Your task to perform on an android device: open wifi settings Image 0: 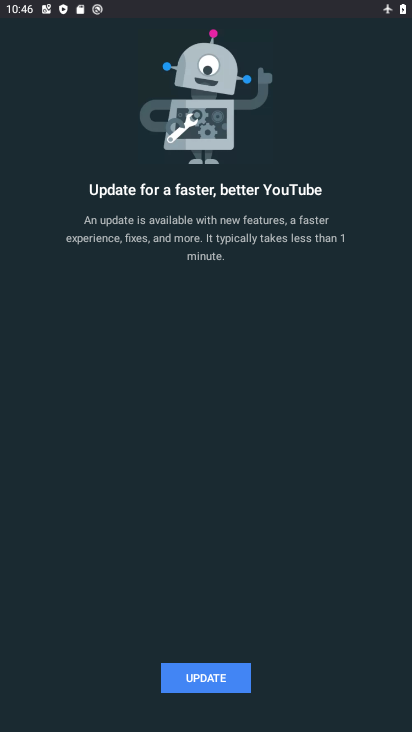
Step 0: press back button
Your task to perform on an android device: open wifi settings Image 1: 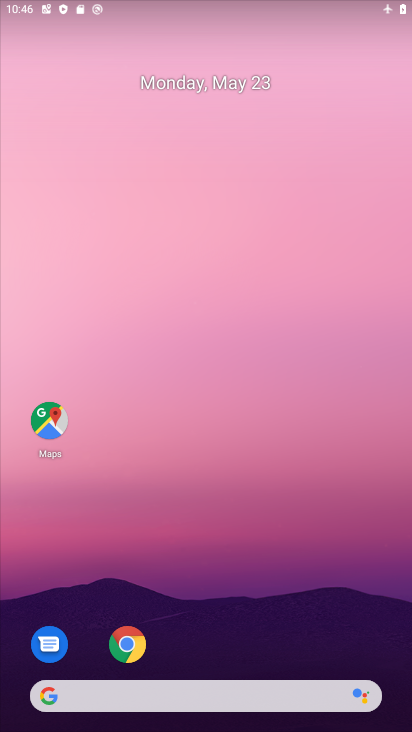
Step 1: drag from (188, 681) to (102, 9)
Your task to perform on an android device: open wifi settings Image 2: 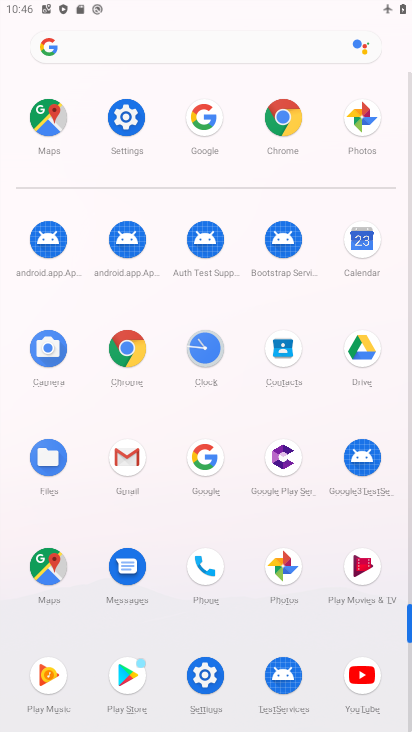
Step 2: click (130, 119)
Your task to perform on an android device: open wifi settings Image 3: 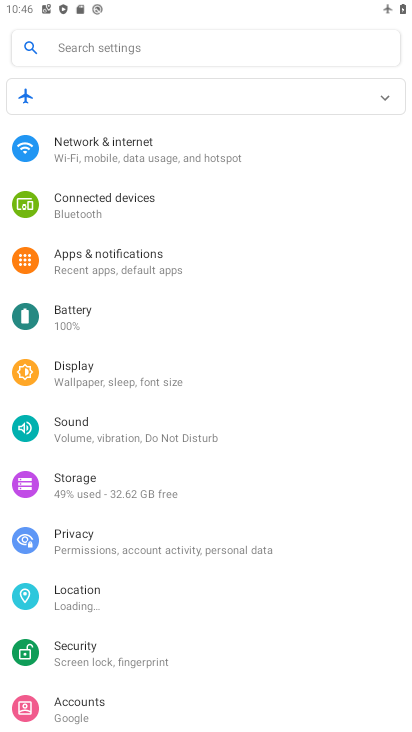
Step 3: click (129, 147)
Your task to perform on an android device: open wifi settings Image 4: 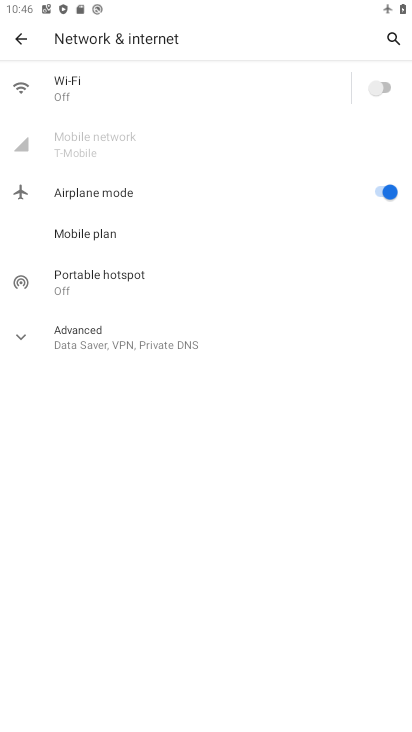
Step 4: click (379, 87)
Your task to perform on an android device: open wifi settings Image 5: 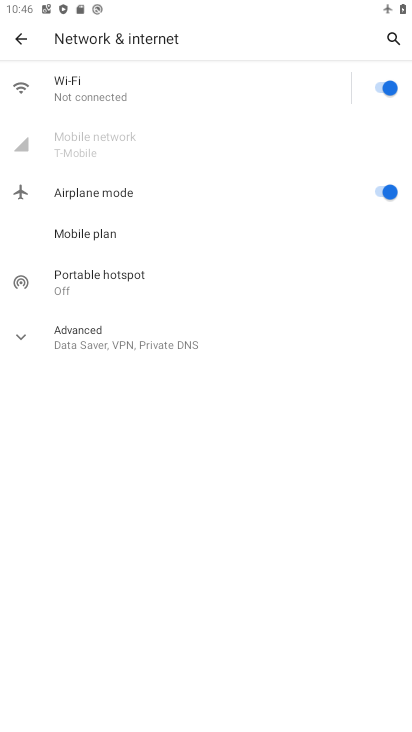
Step 5: task complete